Your task to perform on an android device: See recent photos Image 0: 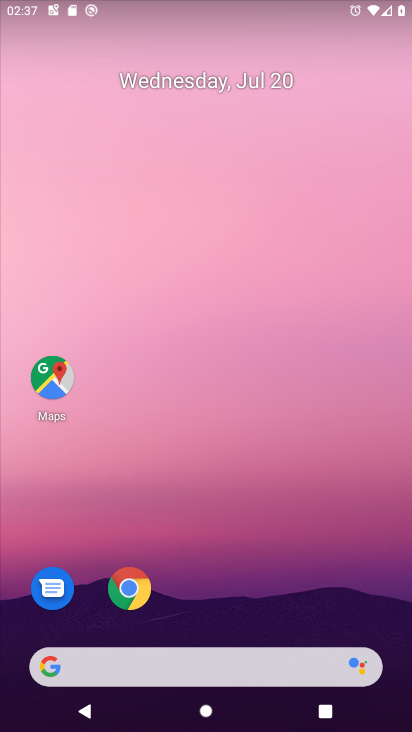
Step 0: drag from (280, 430) to (280, 223)
Your task to perform on an android device: See recent photos Image 1: 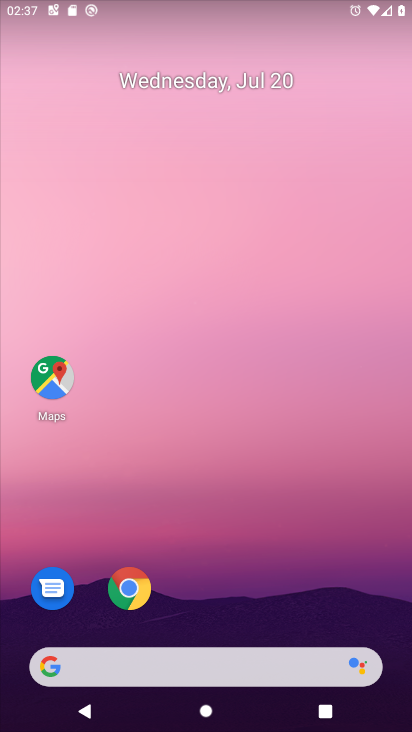
Step 1: drag from (259, 621) to (264, 153)
Your task to perform on an android device: See recent photos Image 2: 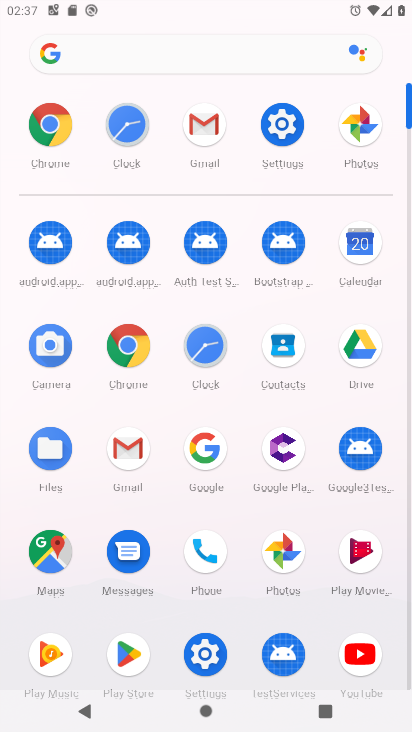
Step 2: click (295, 559)
Your task to perform on an android device: See recent photos Image 3: 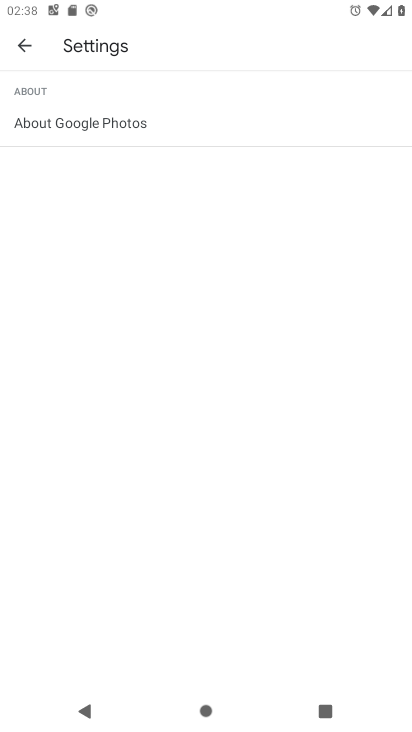
Step 3: click (21, 41)
Your task to perform on an android device: See recent photos Image 4: 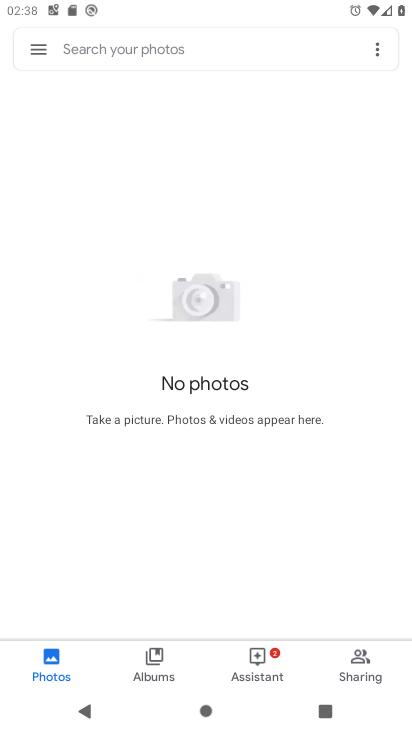
Step 4: click (141, 664)
Your task to perform on an android device: See recent photos Image 5: 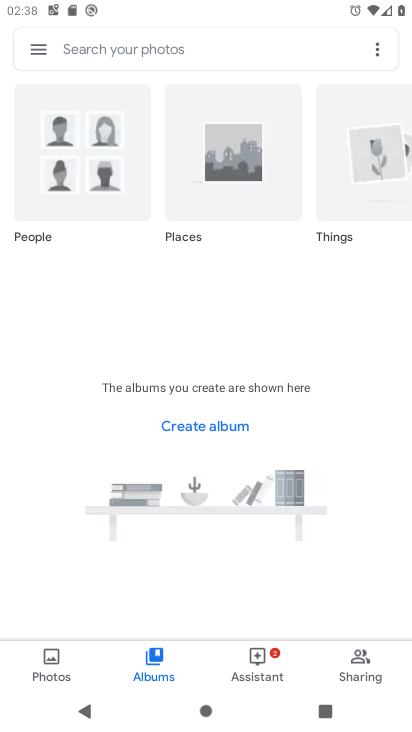
Step 5: task complete